Your task to perform on an android device: Open notification settings Image 0: 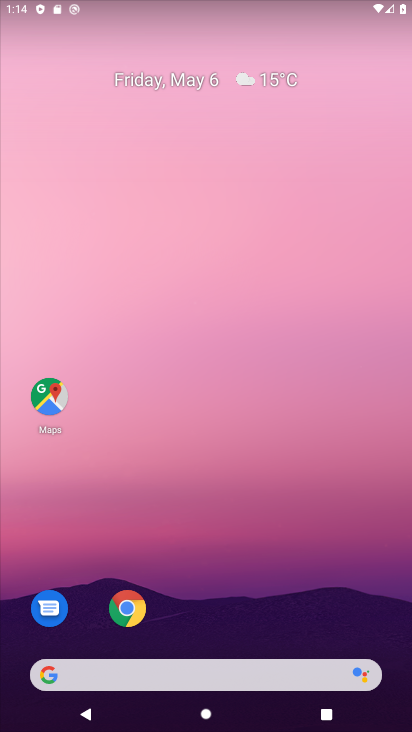
Step 0: drag from (218, 604) to (330, 30)
Your task to perform on an android device: Open notification settings Image 1: 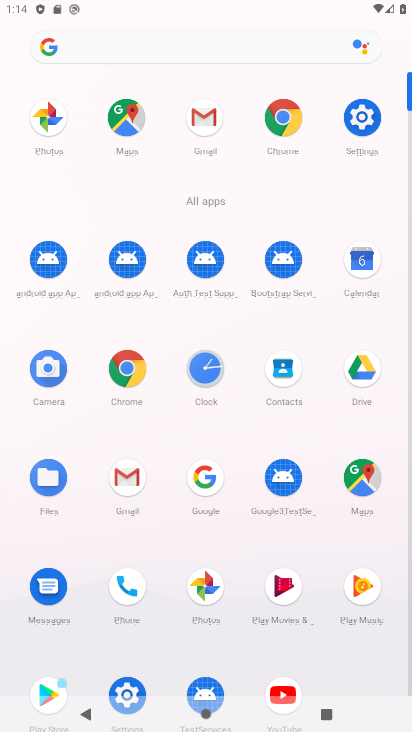
Step 1: click (376, 108)
Your task to perform on an android device: Open notification settings Image 2: 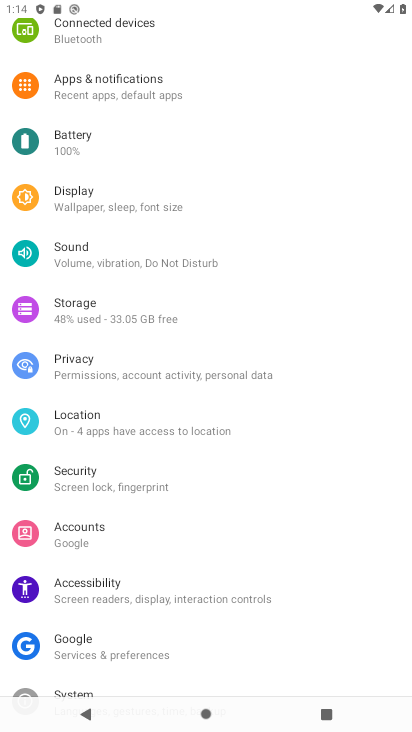
Step 2: click (147, 88)
Your task to perform on an android device: Open notification settings Image 3: 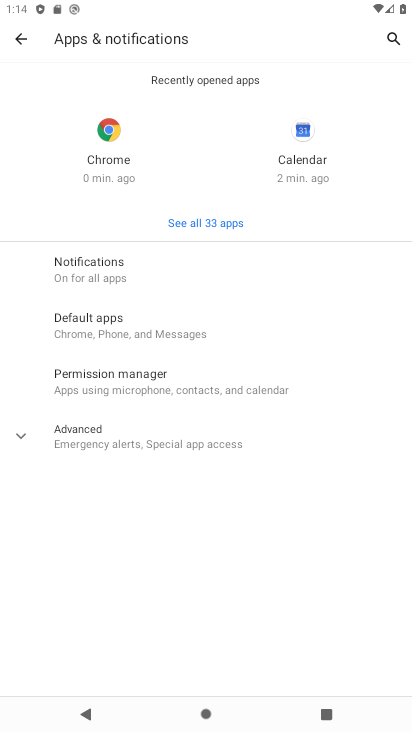
Step 3: click (136, 264)
Your task to perform on an android device: Open notification settings Image 4: 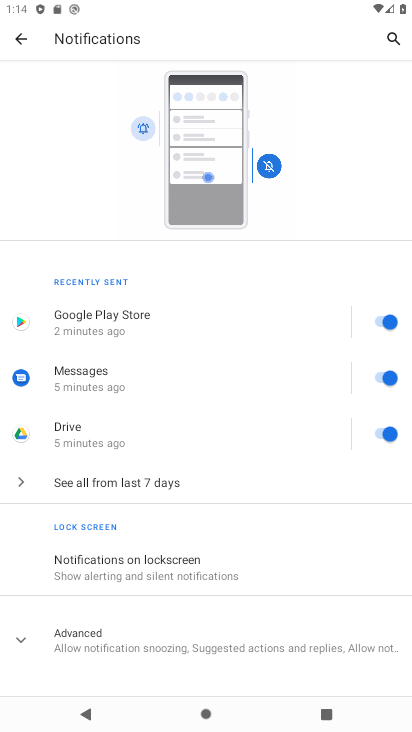
Step 4: task complete